Your task to perform on an android device: turn off sleep mode Image 0: 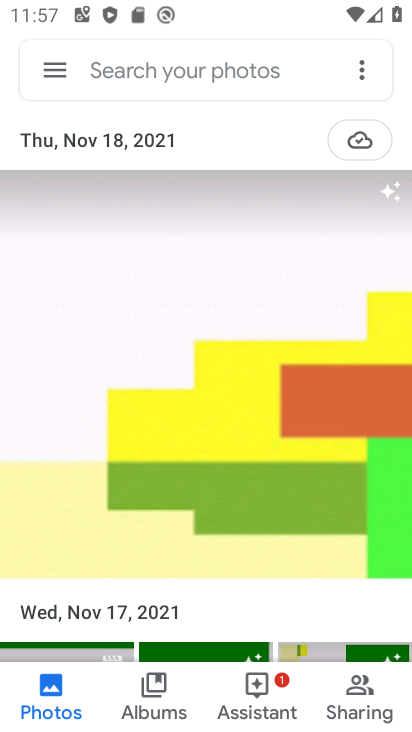
Step 0: press home button
Your task to perform on an android device: turn off sleep mode Image 1: 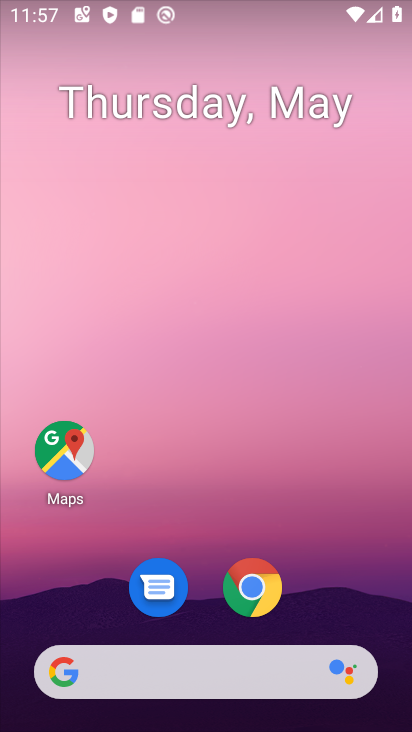
Step 1: drag from (96, 727) to (46, 11)
Your task to perform on an android device: turn off sleep mode Image 2: 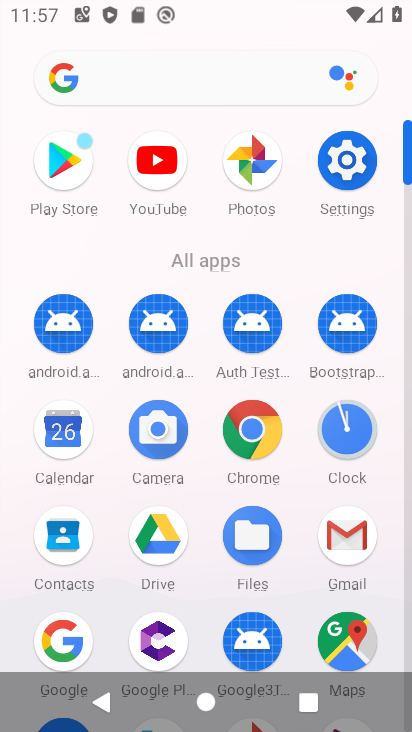
Step 2: click (360, 169)
Your task to perform on an android device: turn off sleep mode Image 3: 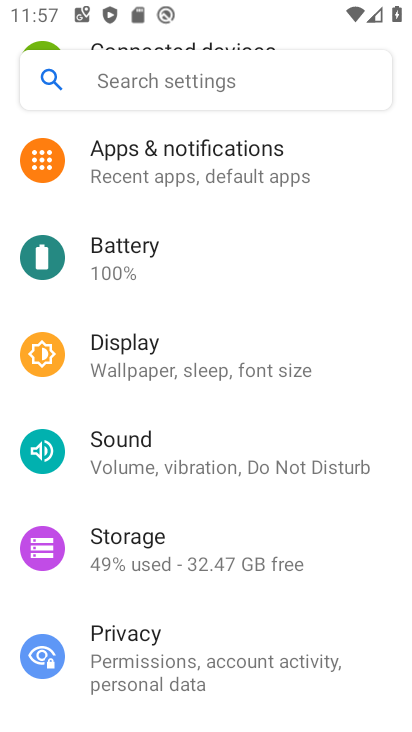
Step 3: drag from (278, 694) to (275, 167)
Your task to perform on an android device: turn off sleep mode Image 4: 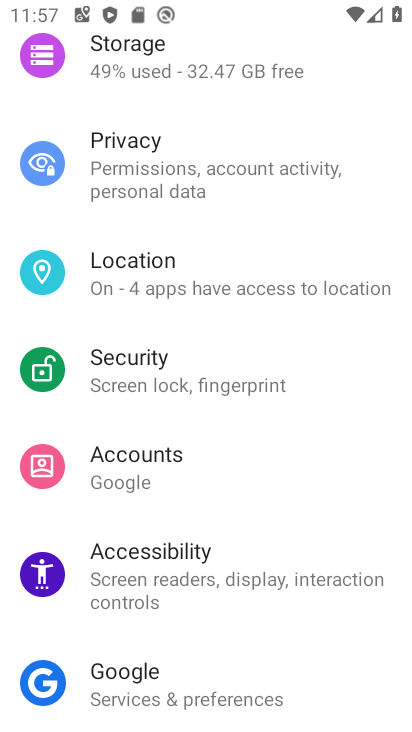
Step 4: drag from (243, 119) to (224, 676)
Your task to perform on an android device: turn off sleep mode Image 5: 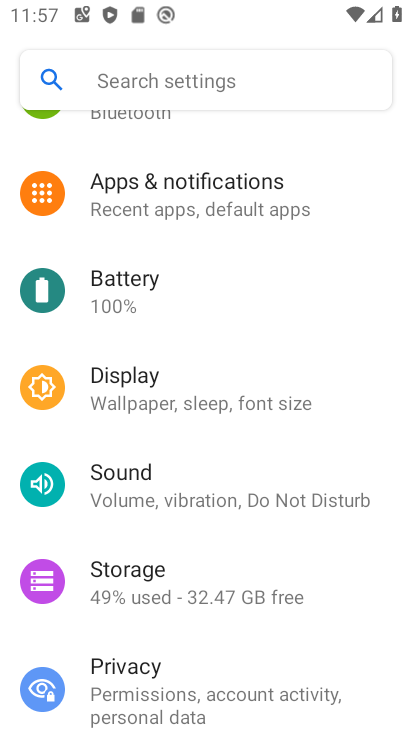
Step 5: press home button
Your task to perform on an android device: turn off sleep mode Image 6: 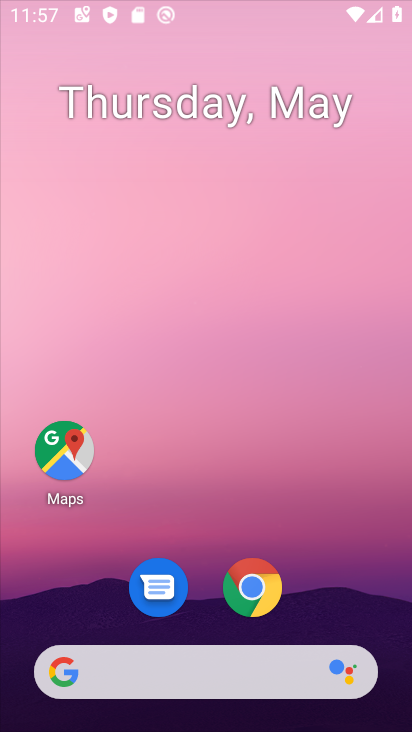
Step 6: drag from (220, 5) to (232, 728)
Your task to perform on an android device: turn off sleep mode Image 7: 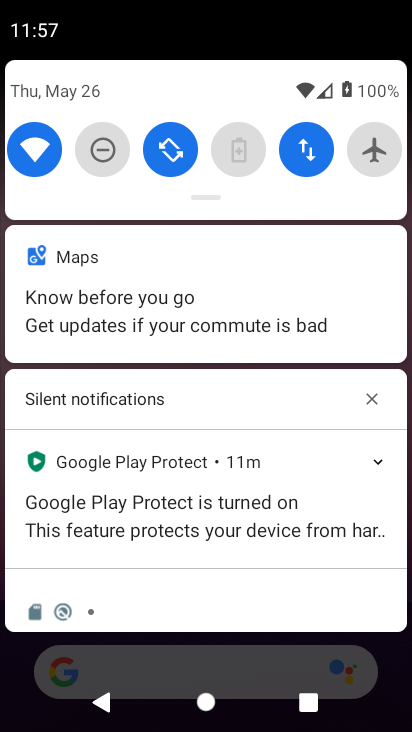
Step 7: drag from (208, 199) to (204, 674)
Your task to perform on an android device: turn off sleep mode Image 8: 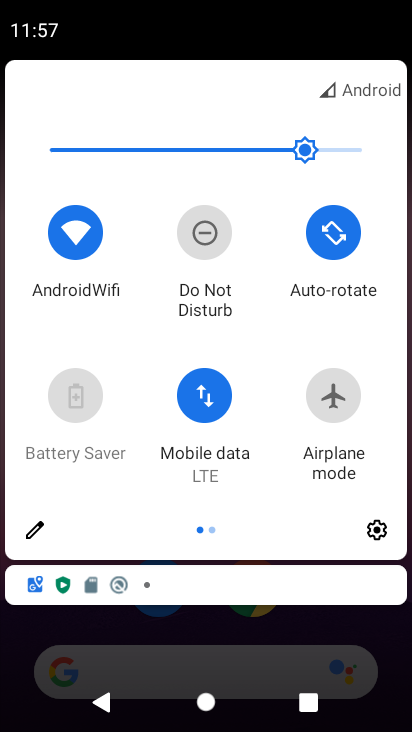
Step 8: click (31, 531)
Your task to perform on an android device: turn off sleep mode Image 9: 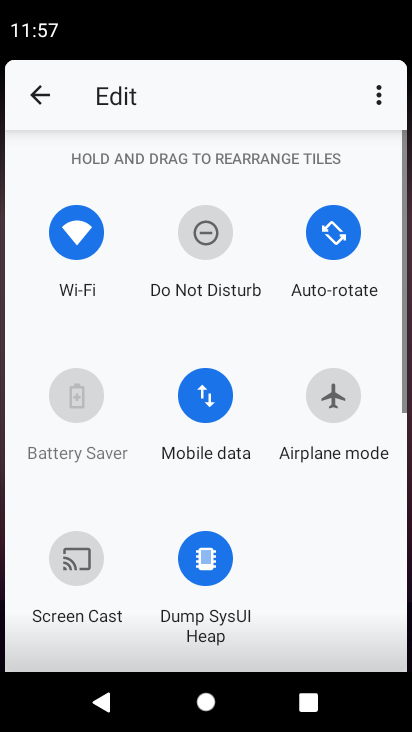
Step 9: task complete